Your task to perform on an android device: Search for vegetarian restaurants on Maps Image 0: 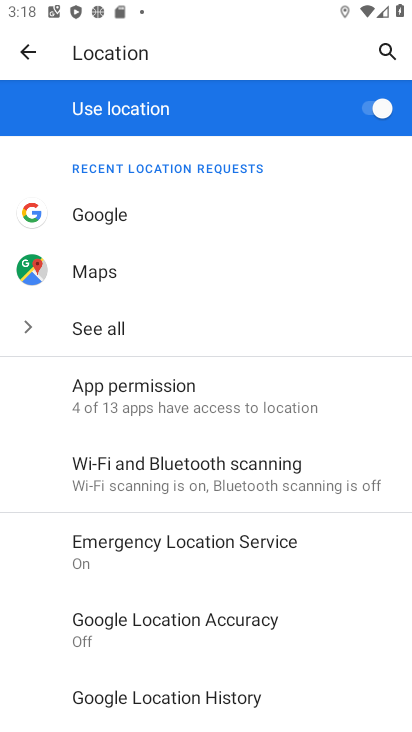
Step 0: press home button
Your task to perform on an android device: Search for vegetarian restaurants on Maps Image 1: 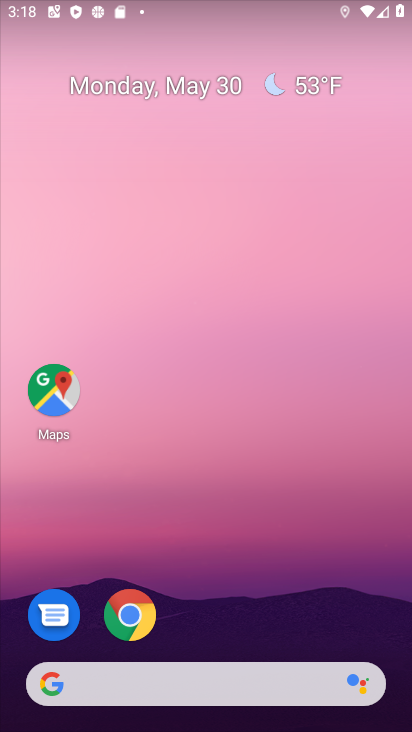
Step 1: click (65, 392)
Your task to perform on an android device: Search for vegetarian restaurants on Maps Image 2: 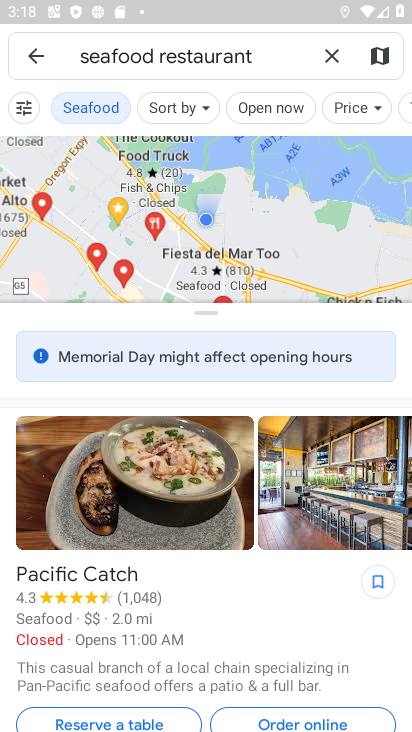
Step 2: click (38, 59)
Your task to perform on an android device: Search for vegetarian restaurants on Maps Image 3: 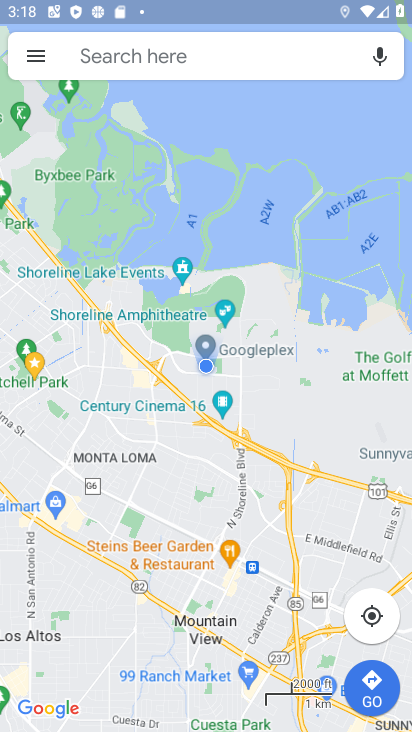
Step 3: click (38, 59)
Your task to perform on an android device: Search for vegetarian restaurants on Maps Image 4: 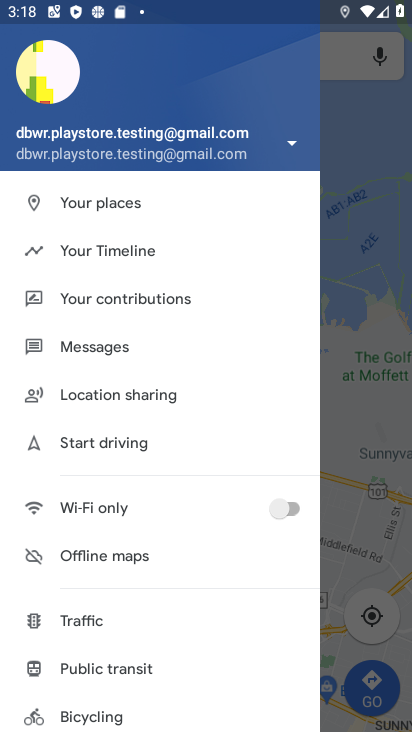
Step 4: click (350, 131)
Your task to perform on an android device: Search for vegetarian restaurants on Maps Image 5: 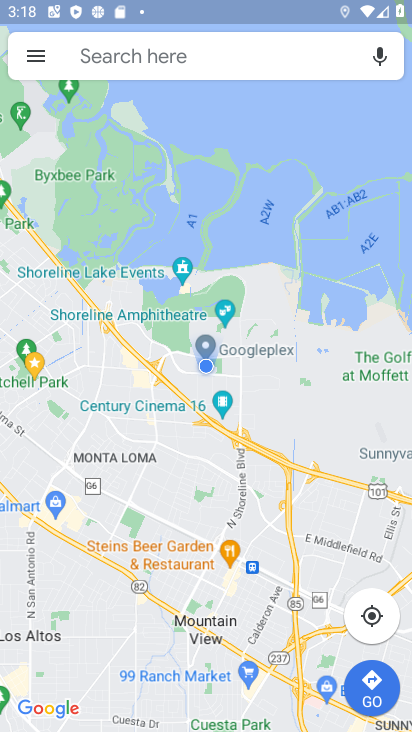
Step 5: click (217, 74)
Your task to perform on an android device: Search for vegetarian restaurants on Maps Image 6: 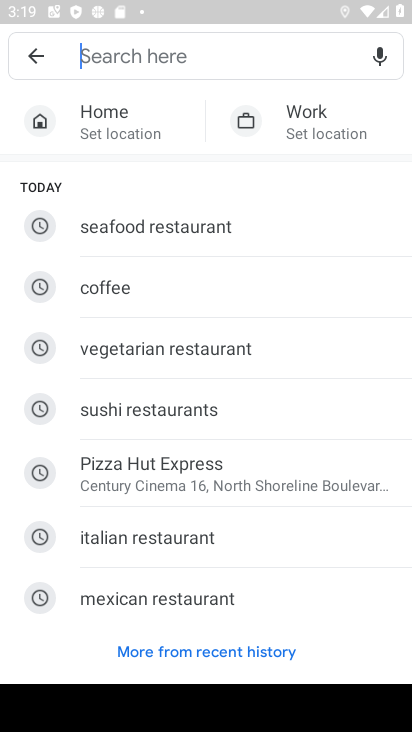
Step 6: click (161, 337)
Your task to perform on an android device: Search for vegetarian restaurants on Maps Image 7: 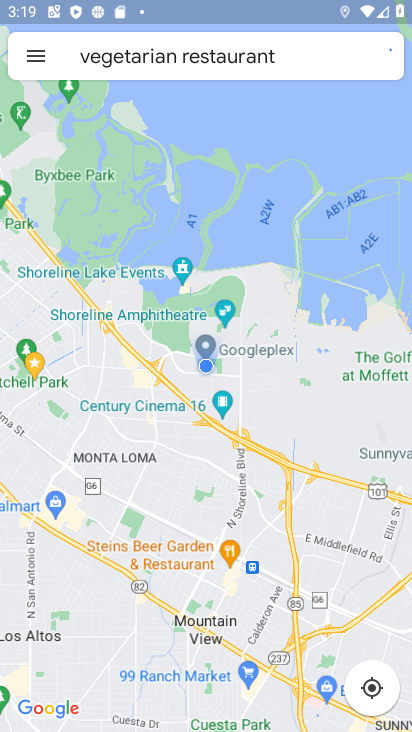
Step 7: task complete